Your task to perform on an android device: Open calendar and show me the third week of next month Image 0: 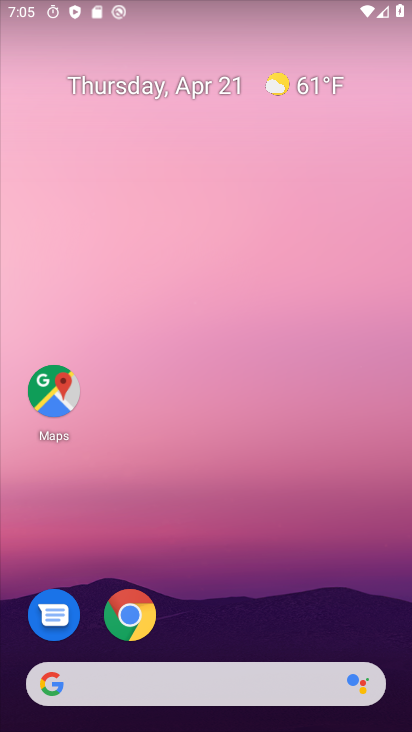
Step 0: click (327, 39)
Your task to perform on an android device: Open calendar and show me the third week of next month Image 1: 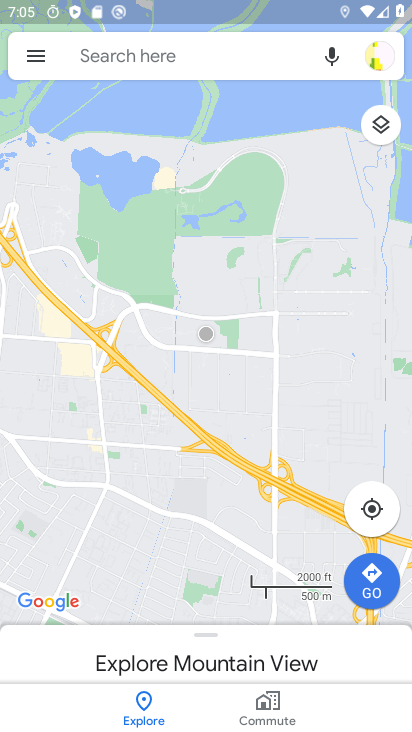
Step 1: press home button
Your task to perform on an android device: Open calendar and show me the third week of next month Image 2: 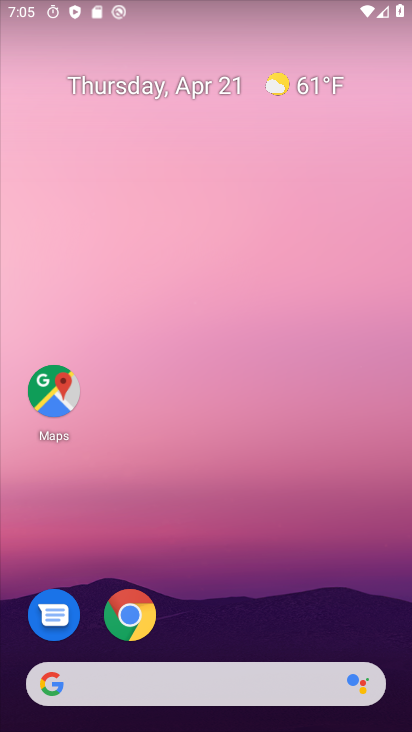
Step 2: drag from (171, 647) to (208, 254)
Your task to perform on an android device: Open calendar and show me the third week of next month Image 3: 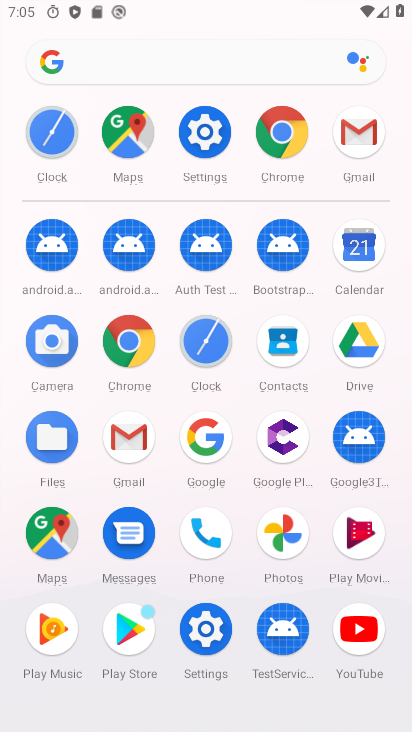
Step 3: click (361, 247)
Your task to perform on an android device: Open calendar and show me the third week of next month Image 4: 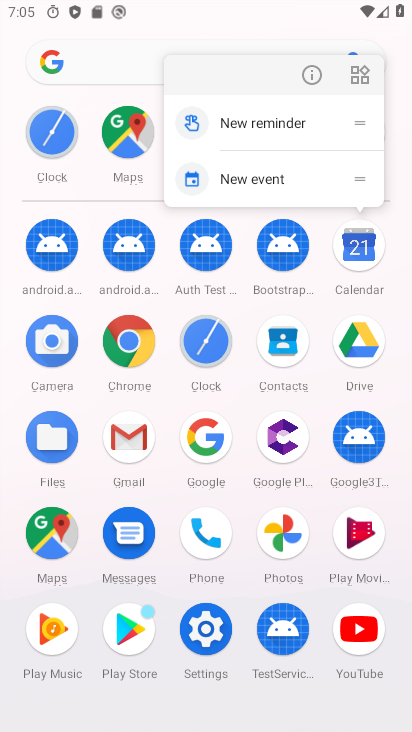
Step 4: click (300, 73)
Your task to perform on an android device: Open calendar and show me the third week of next month Image 5: 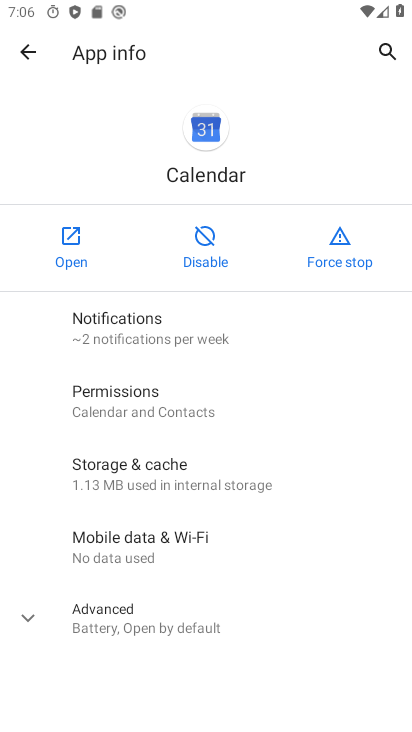
Step 5: click (81, 235)
Your task to perform on an android device: Open calendar and show me the third week of next month Image 6: 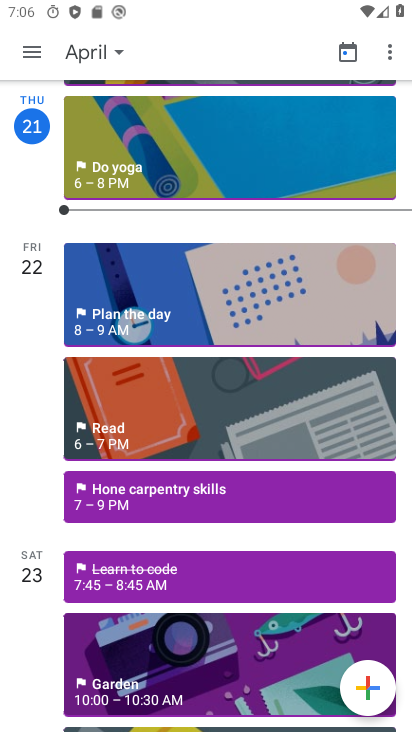
Step 6: click (60, 252)
Your task to perform on an android device: Open calendar and show me the third week of next month Image 7: 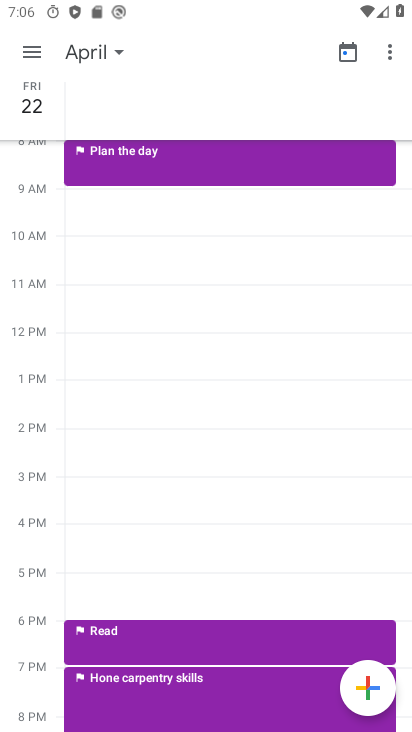
Step 7: click (73, 64)
Your task to perform on an android device: Open calendar and show me the third week of next month Image 8: 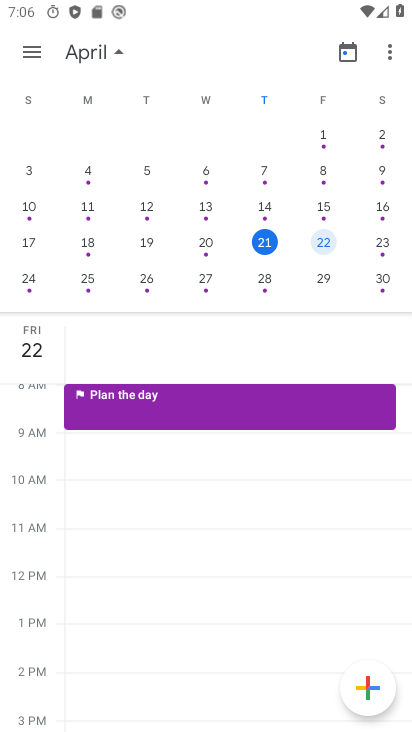
Step 8: drag from (354, 180) to (1, 193)
Your task to perform on an android device: Open calendar and show me the third week of next month Image 9: 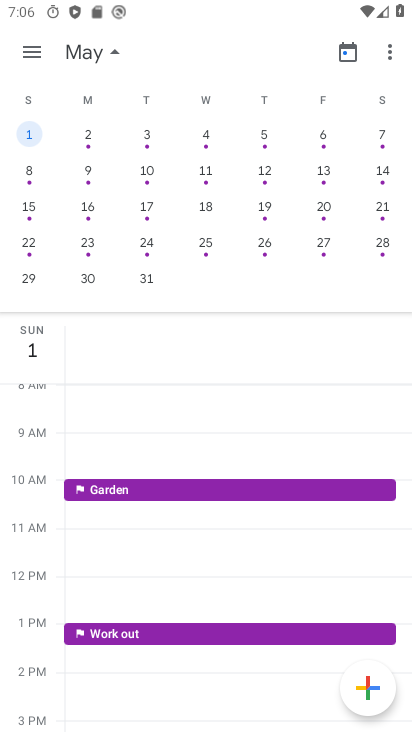
Step 9: click (204, 221)
Your task to perform on an android device: Open calendar and show me the third week of next month Image 10: 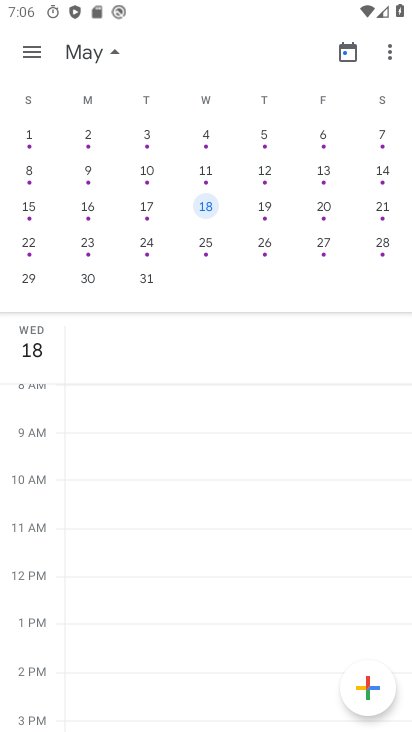
Step 10: task complete